Your task to perform on an android device: Go to Maps Image 0: 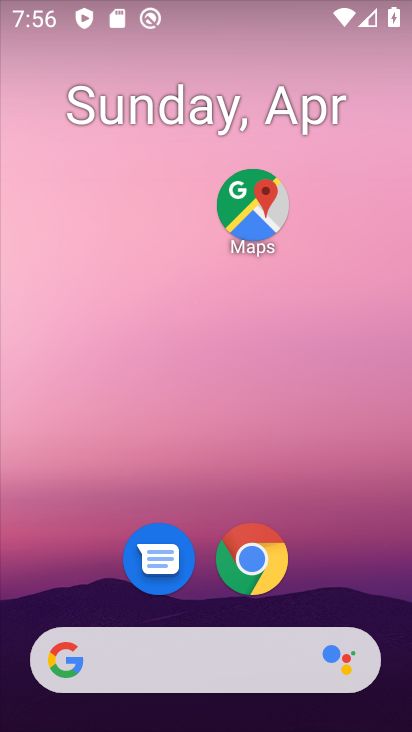
Step 0: click (239, 212)
Your task to perform on an android device: Go to Maps Image 1: 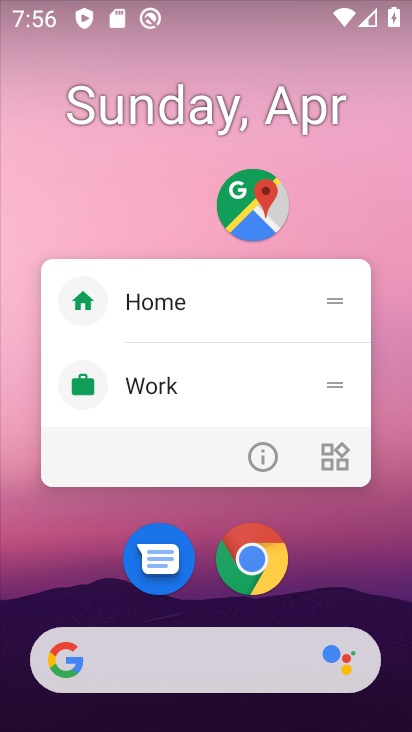
Step 1: click (273, 457)
Your task to perform on an android device: Go to Maps Image 2: 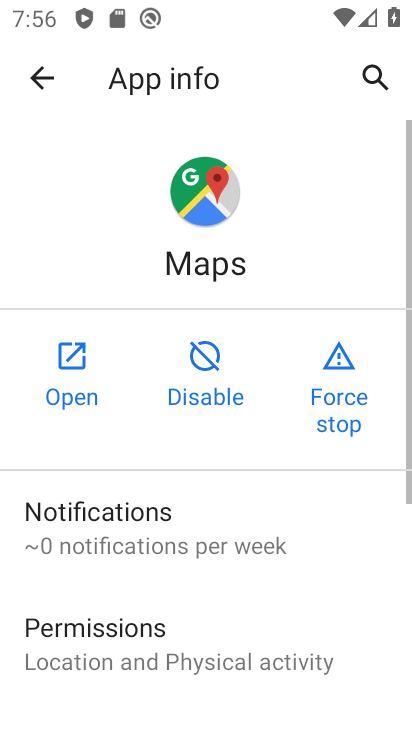
Step 2: click (69, 357)
Your task to perform on an android device: Go to Maps Image 3: 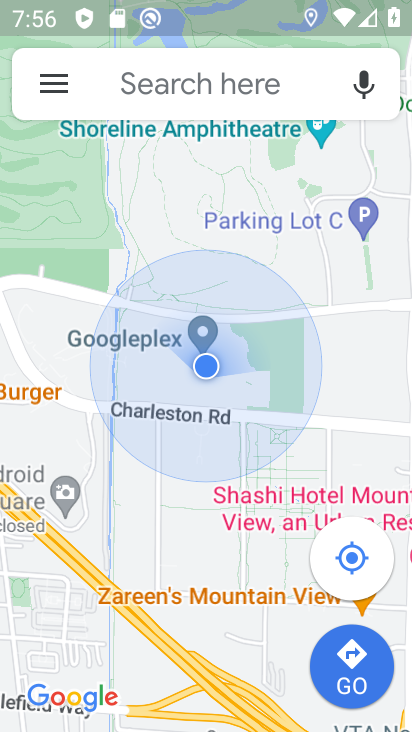
Step 3: task complete